Your task to perform on an android device: delete location history Image 0: 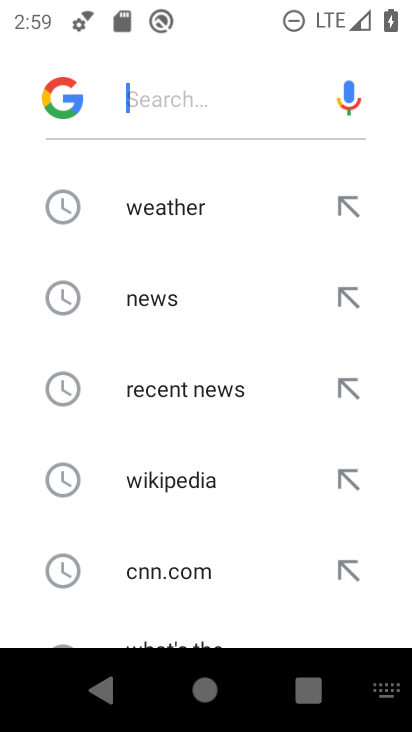
Step 0: press home button
Your task to perform on an android device: delete location history Image 1: 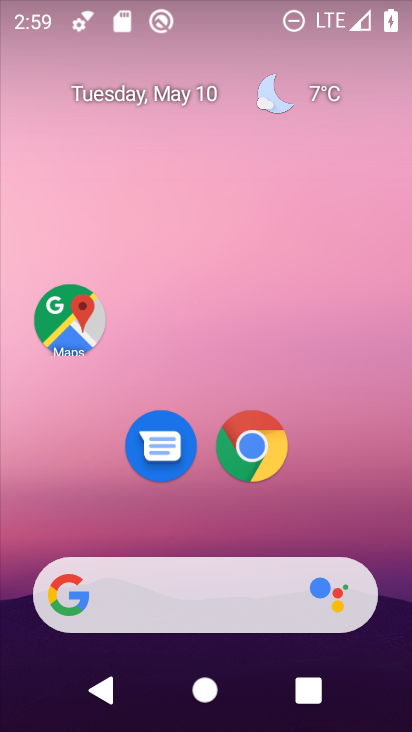
Step 1: drag from (239, 518) to (256, 107)
Your task to perform on an android device: delete location history Image 2: 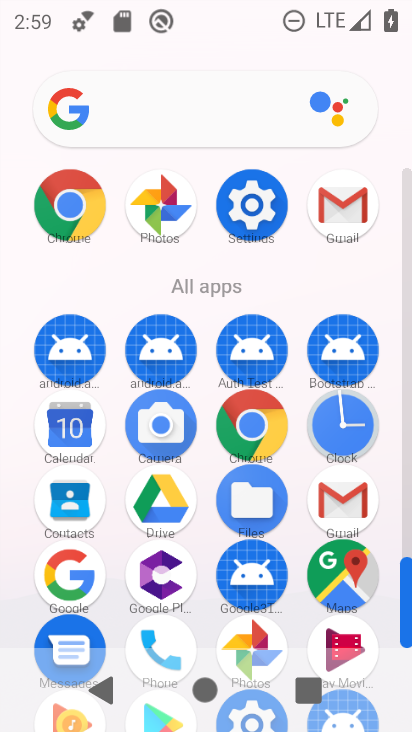
Step 2: click (238, 187)
Your task to perform on an android device: delete location history Image 3: 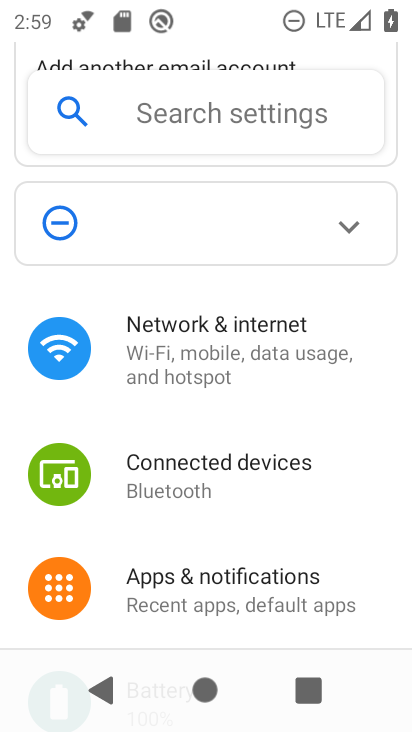
Step 3: drag from (250, 557) to (257, 209)
Your task to perform on an android device: delete location history Image 4: 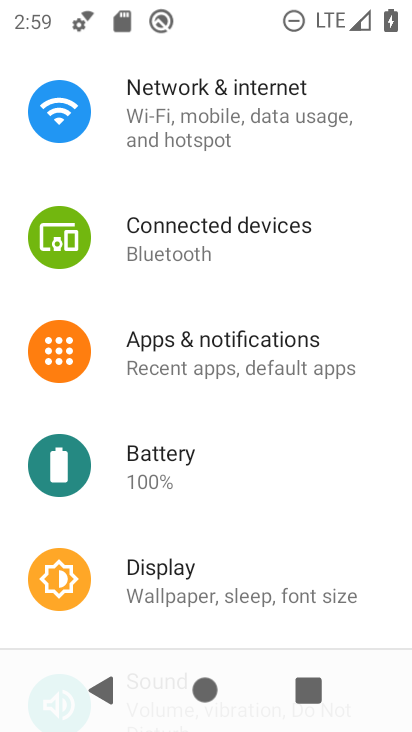
Step 4: drag from (262, 495) to (231, 182)
Your task to perform on an android device: delete location history Image 5: 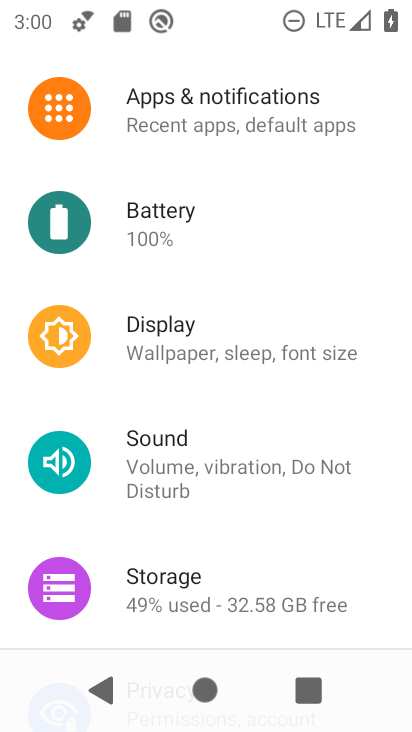
Step 5: drag from (239, 510) to (249, 210)
Your task to perform on an android device: delete location history Image 6: 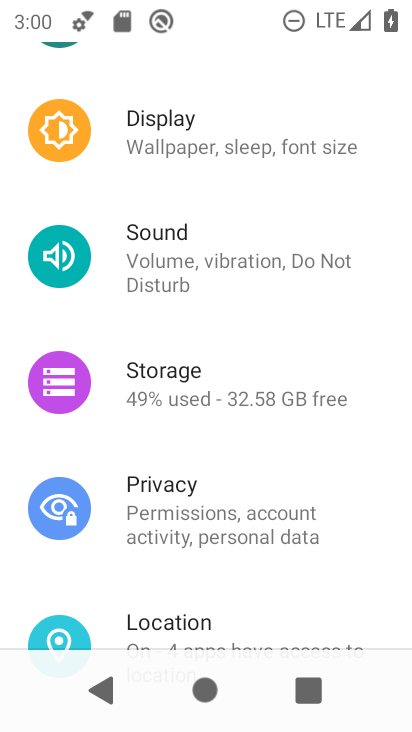
Step 6: click (189, 607)
Your task to perform on an android device: delete location history Image 7: 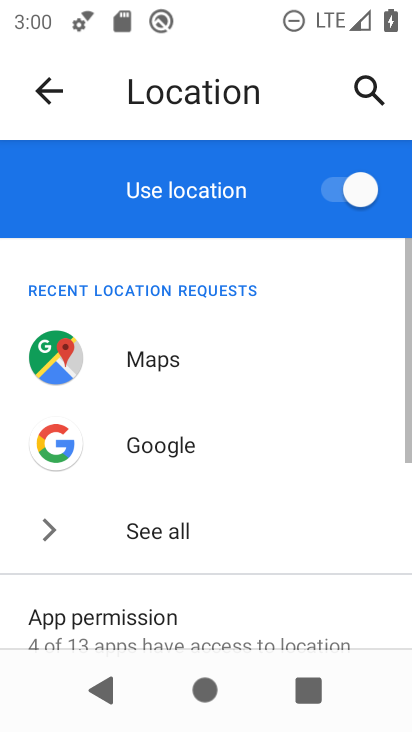
Step 7: drag from (236, 557) to (261, 173)
Your task to perform on an android device: delete location history Image 8: 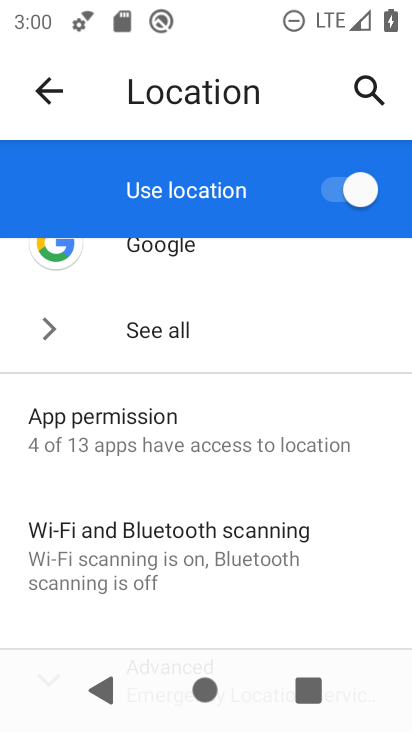
Step 8: drag from (177, 531) to (183, 347)
Your task to perform on an android device: delete location history Image 9: 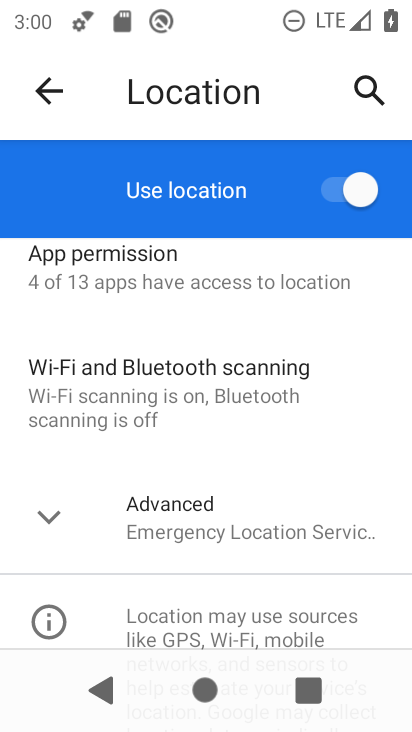
Step 9: click (182, 510)
Your task to perform on an android device: delete location history Image 10: 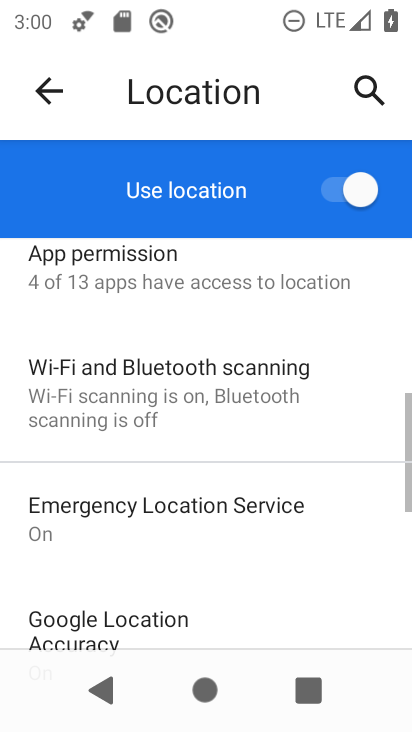
Step 10: drag from (219, 556) to (238, 300)
Your task to perform on an android device: delete location history Image 11: 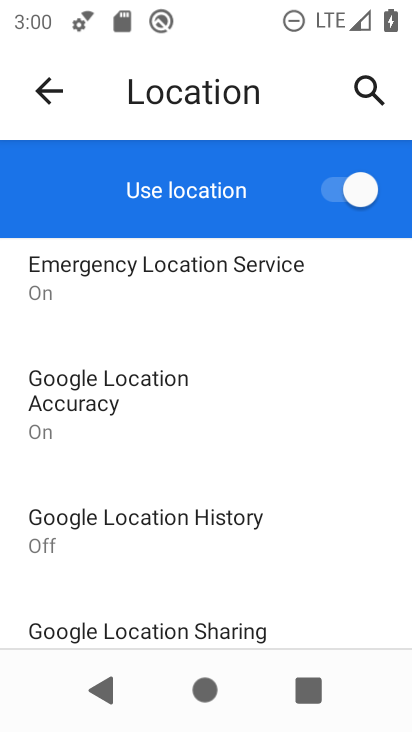
Step 11: click (241, 521)
Your task to perform on an android device: delete location history Image 12: 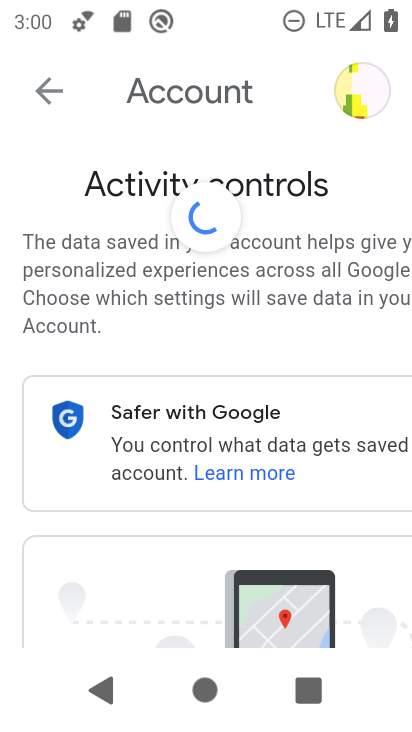
Step 12: drag from (165, 546) to (202, 216)
Your task to perform on an android device: delete location history Image 13: 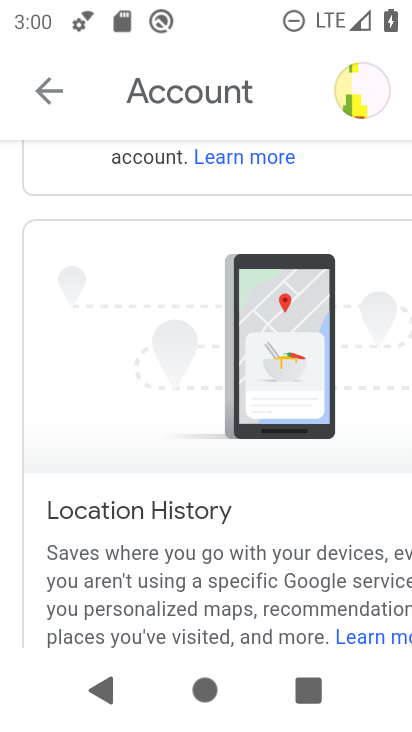
Step 13: drag from (160, 550) to (183, 231)
Your task to perform on an android device: delete location history Image 14: 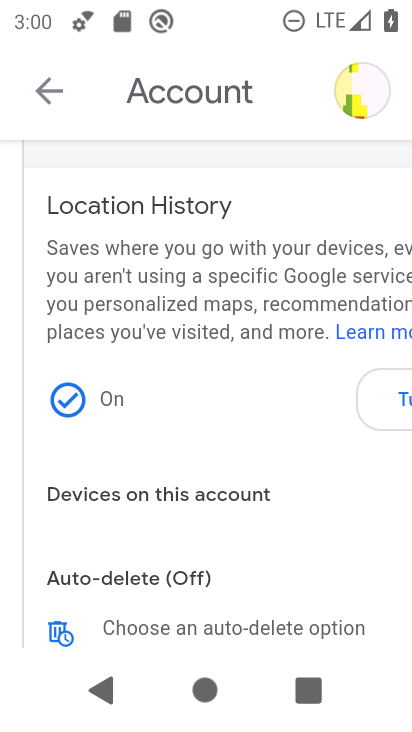
Step 14: click (382, 398)
Your task to perform on an android device: delete location history Image 15: 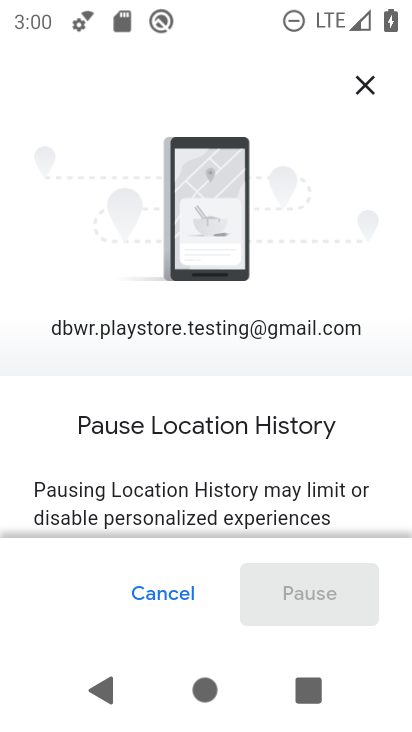
Step 15: drag from (225, 483) to (245, 188)
Your task to perform on an android device: delete location history Image 16: 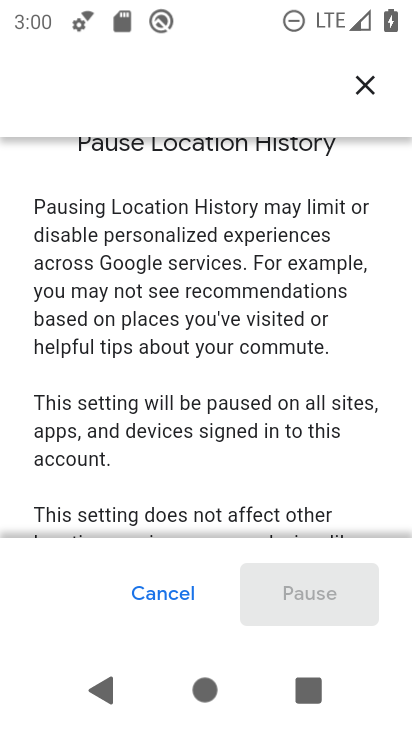
Step 16: drag from (233, 471) to (267, 130)
Your task to perform on an android device: delete location history Image 17: 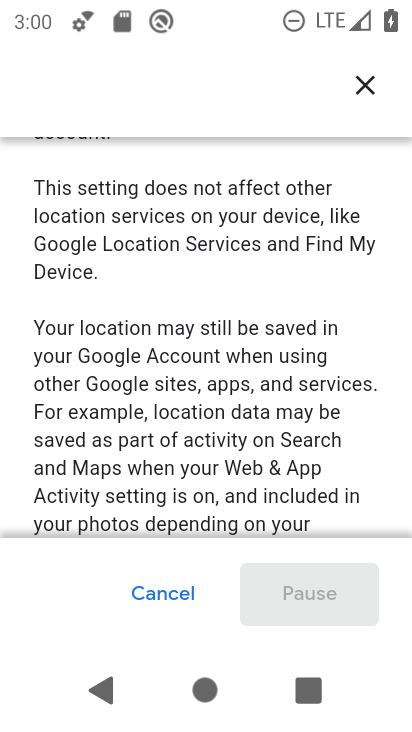
Step 17: drag from (227, 439) to (266, 187)
Your task to perform on an android device: delete location history Image 18: 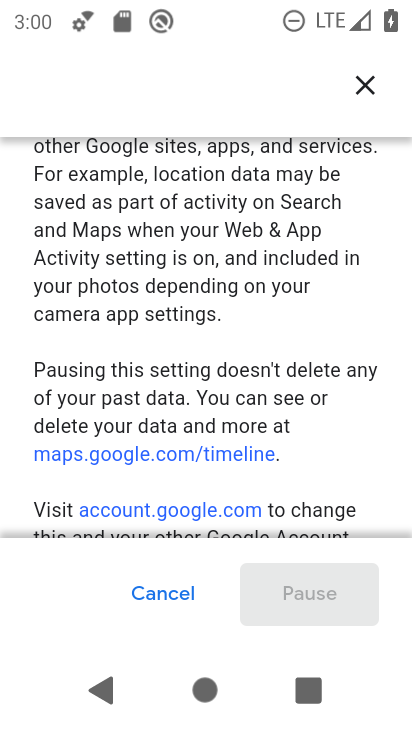
Step 18: drag from (200, 429) to (248, 207)
Your task to perform on an android device: delete location history Image 19: 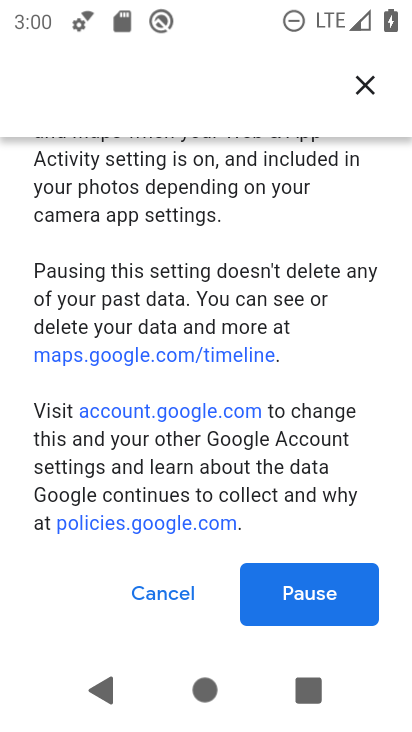
Step 19: click (293, 584)
Your task to perform on an android device: delete location history Image 20: 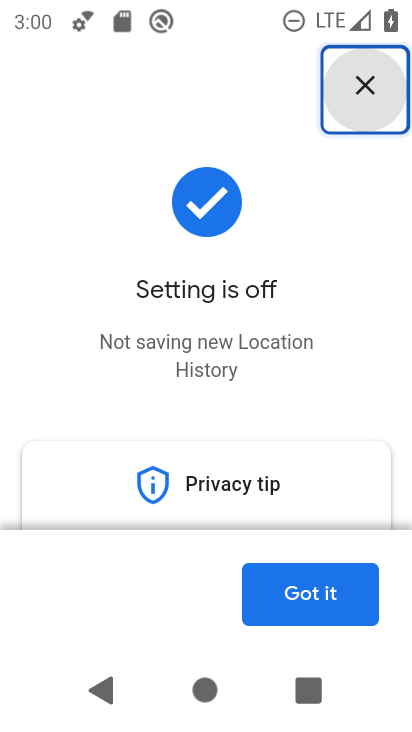
Step 20: click (319, 587)
Your task to perform on an android device: delete location history Image 21: 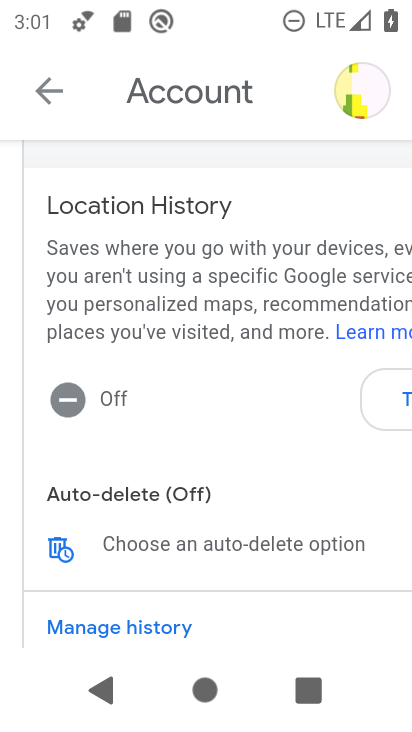
Step 21: task complete